Your task to perform on an android device: turn smart compose on in the gmail app Image 0: 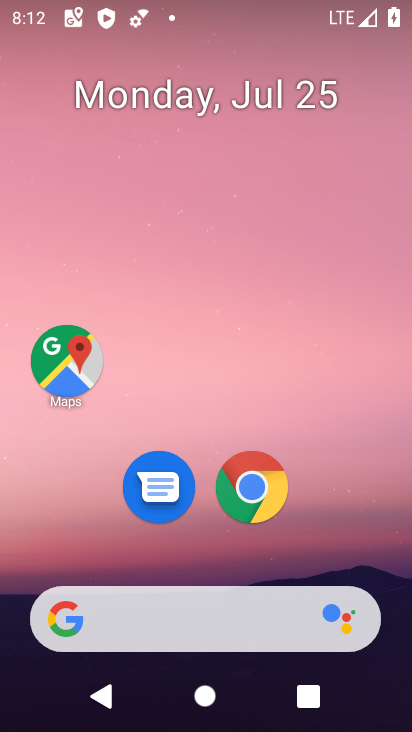
Step 0: drag from (195, 433) to (215, 1)
Your task to perform on an android device: turn smart compose on in the gmail app Image 1: 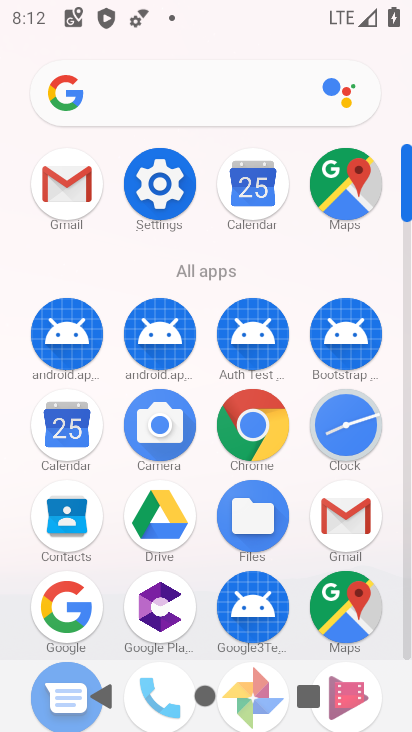
Step 1: click (63, 173)
Your task to perform on an android device: turn smart compose on in the gmail app Image 2: 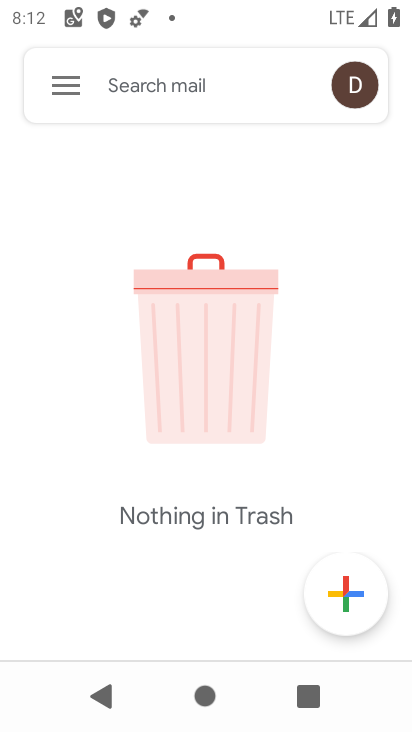
Step 2: click (68, 87)
Your task to perform on an android device: turn smart compose on in the gmail app Image 3: 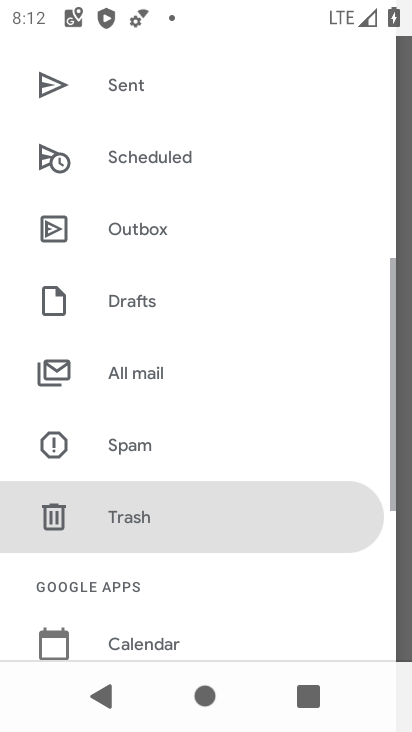
Step 3: drag from (145, 635) to (233, 30)
Your task to perform on an android device: turn smart compose on in the gmail app Image 4: 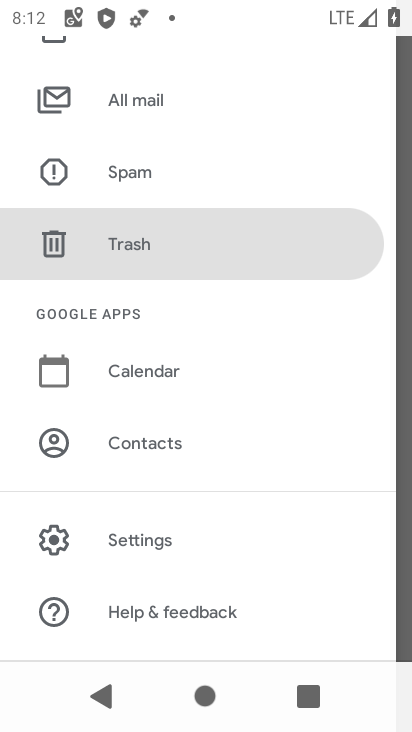
Step 4: click (126, 528)
Your task to perform on an android device: turn smart compose on in the gmail app Image 5: 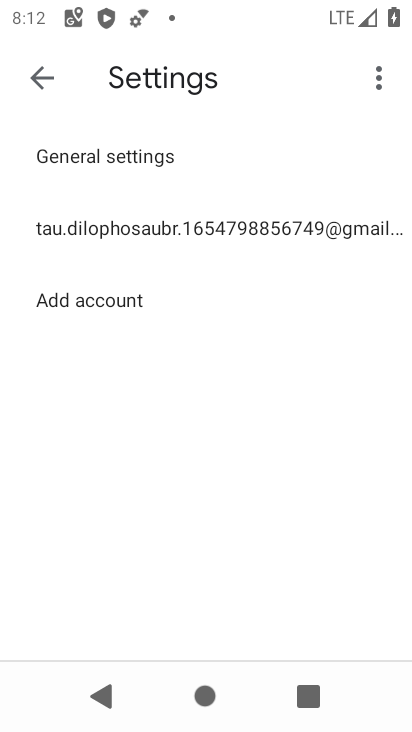
Step 5: click (141, 226)
Your task to perform on an android device: turn smart compose on in the gmail app Image 6: 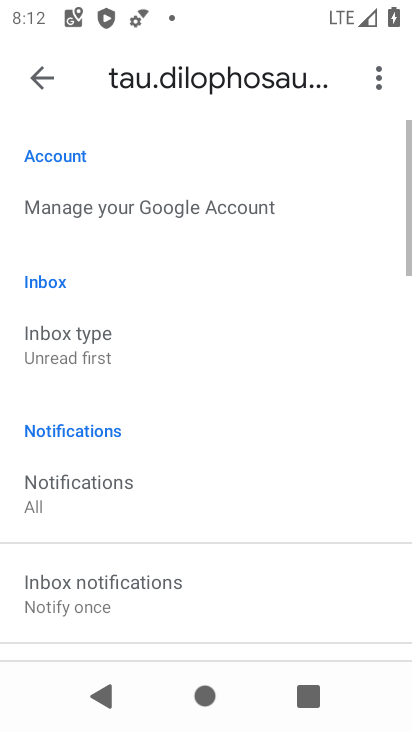
Step 6: task complete